Your task to perform on an android device: Open network settings Image 0: 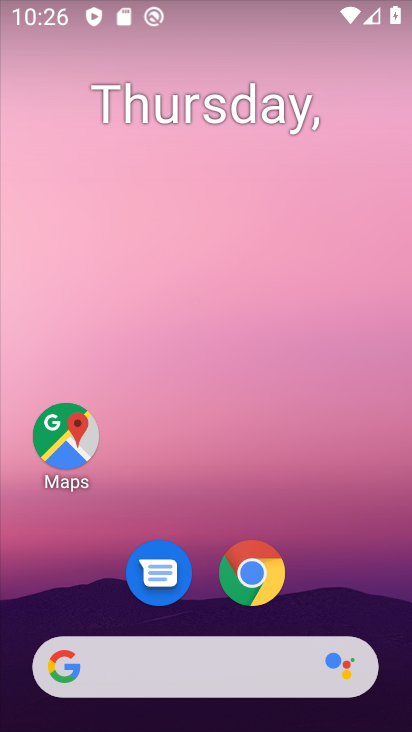
Step 0: drag from (360, 575) to (312, 138)
Your task to perform on an android device: Open network settings Image 1: 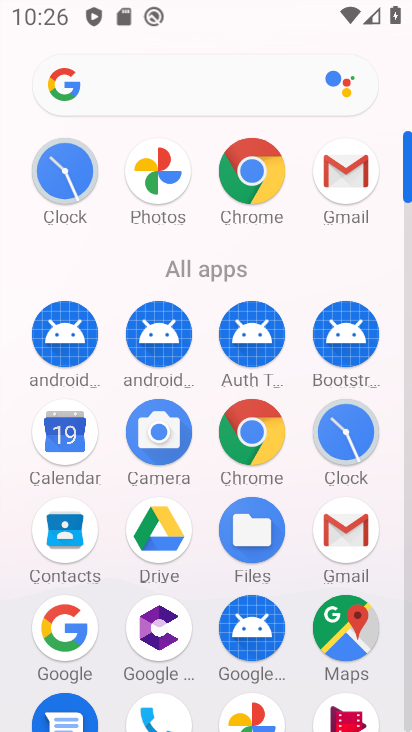
Step 1: drag from (215, 570) to (278, 166)
Your task to perform on an android device: Open network settings Image 2: 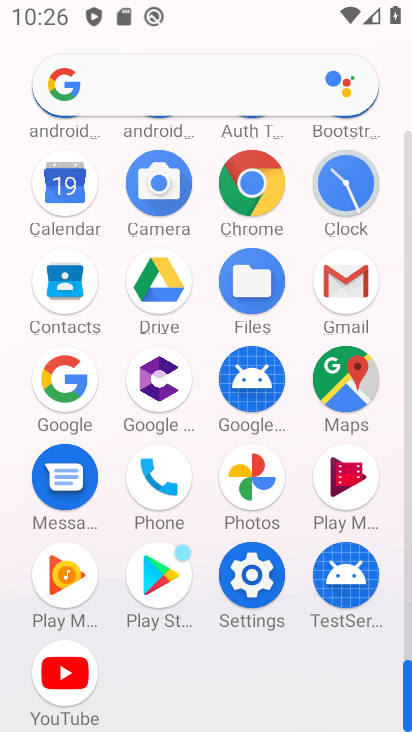
Step 2: click (254, 587)
Your task to perform on an android device: Open network settings Image 3: 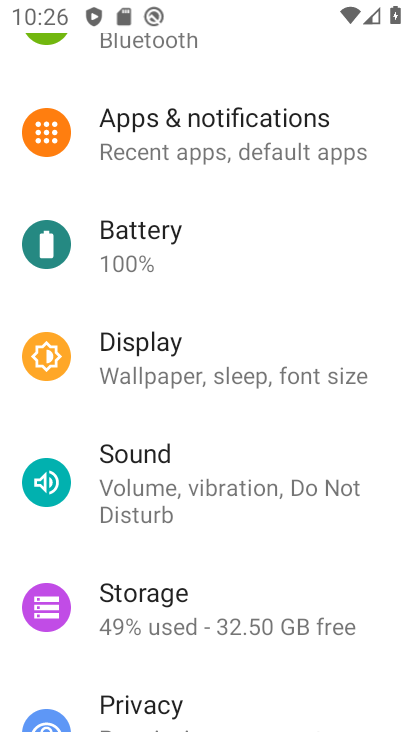
Step 3: drag from (205, 265) to (207, 581)
Your task to perform on an android device: Open network settings Image 4: 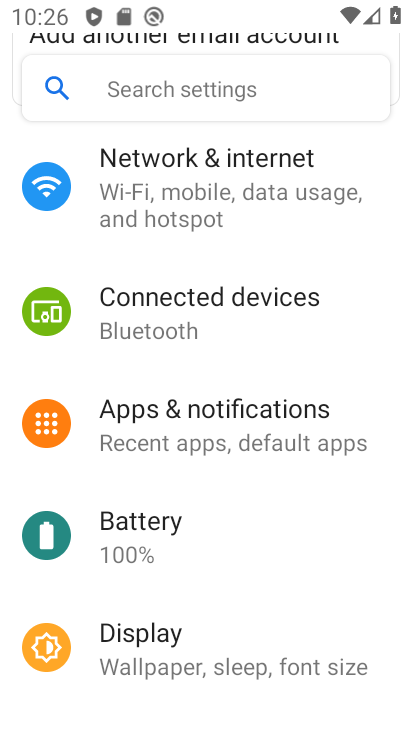
Step 4: click (204, 167)
Your task to perform on an android device: Open network settings Image 5: 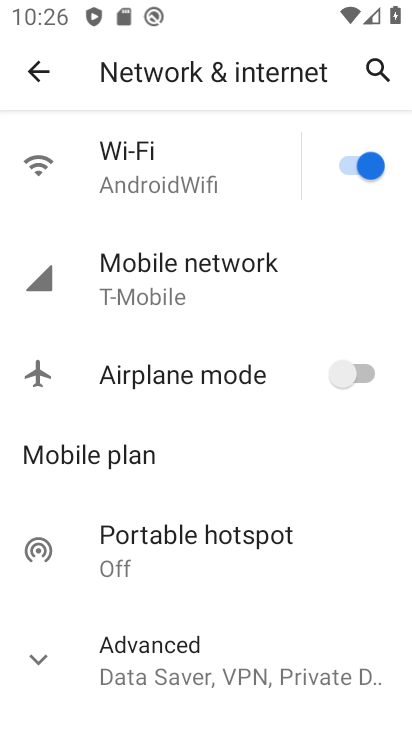
Step 5: task complete